Your task to perform on an android device: all mails in gmail Image 0: 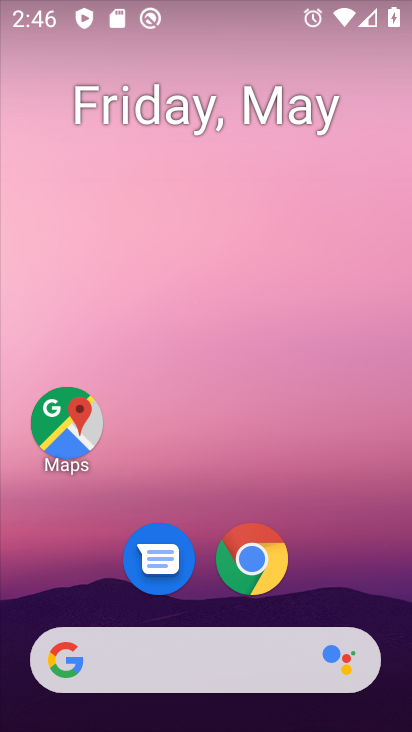
Step 0: drag from (373, 612) to (82, 118)
Your task to perform on an android device: all mails in gmail Image 1: 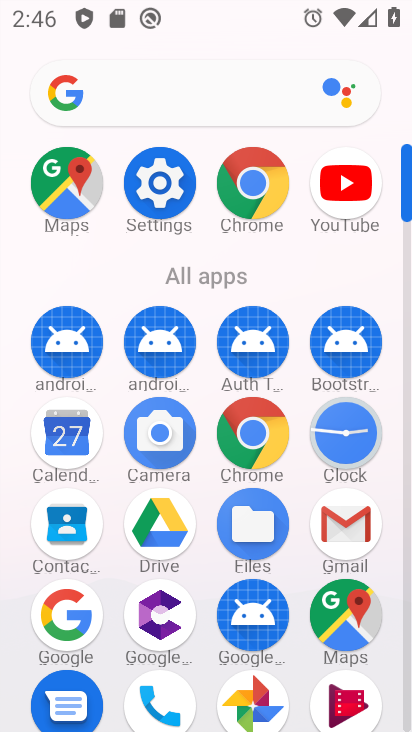
Step 1: click (408, 718)
Your task to perform on an android device: all mails in gmail Image 2: 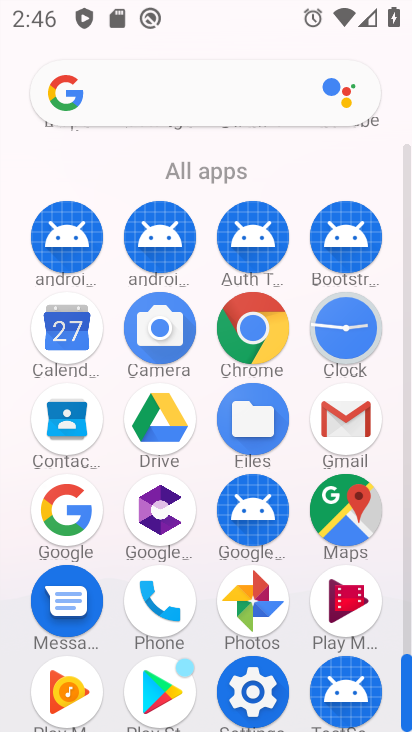
Step 2: click (337, 437)
Your task to perform on an android device: all mails in gmail Image 3: 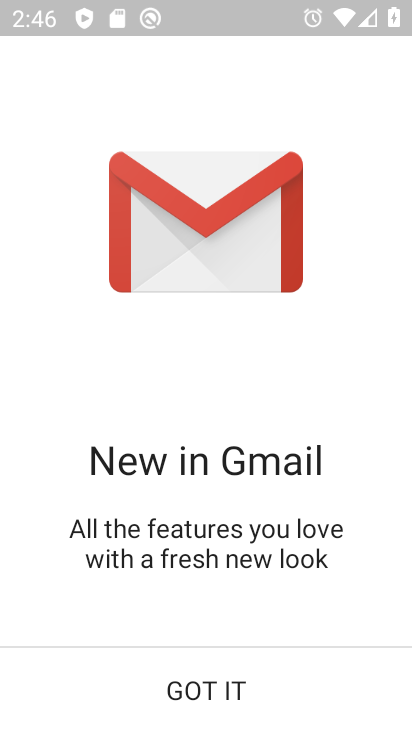
Step 3: click (185, 722)
Your task to perform on an android device: all mails in gmail Image 4: 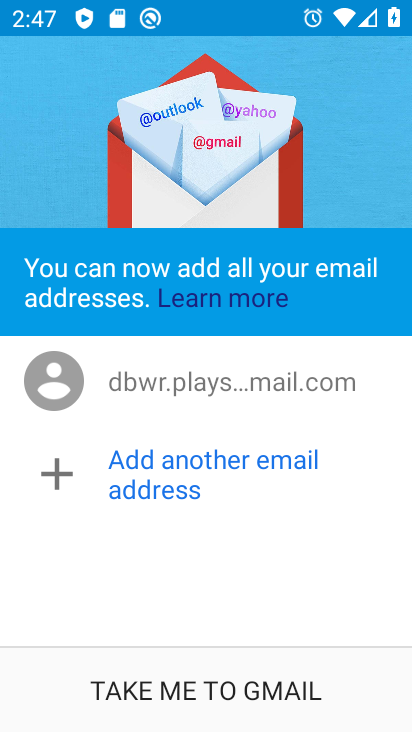
Step 4: click (185, 722)
Your task to perform on an android device: all mails in gmail Image 5: 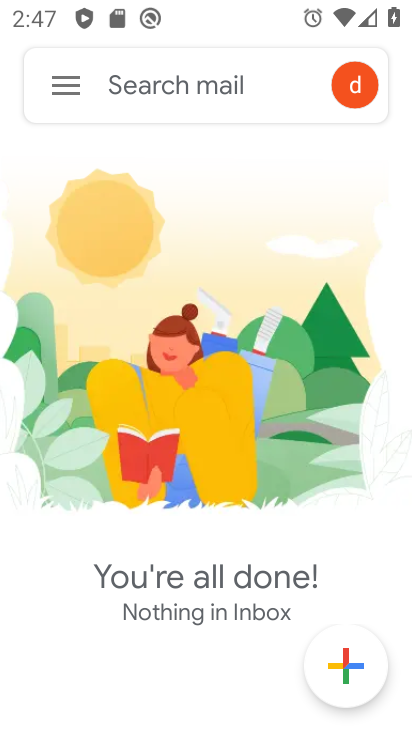
Step 5: click (33, 66)
Your task to perform on an android device: all mails in gmail Image 6: 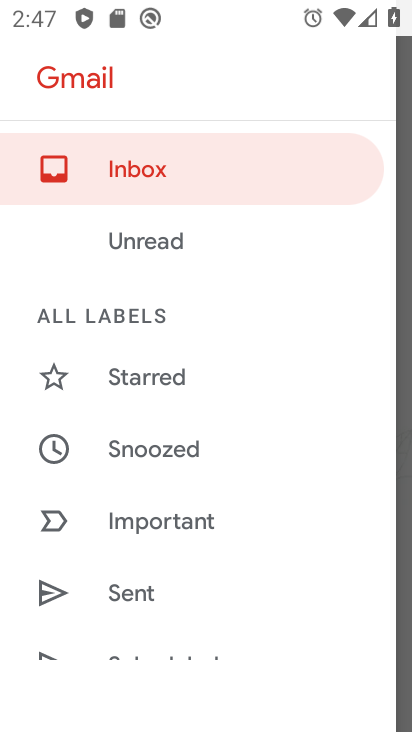
Step 6: drag from (162, 490) to (122, 154)
Your task to perform on an android device: all mails in gmail Image 7: 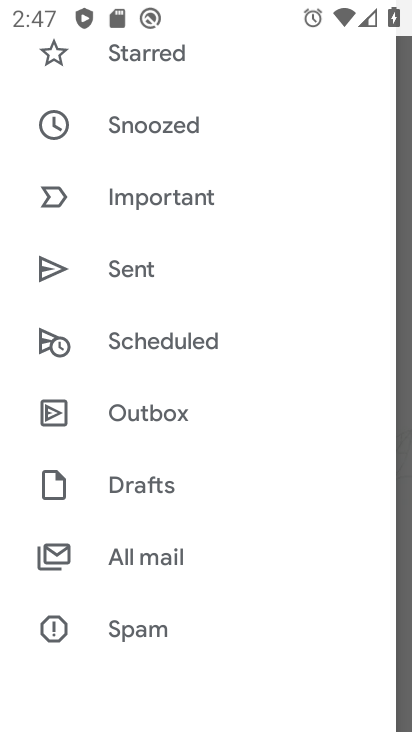
Step 7: click (189, 552)
Your task to perform on an android device: all mails in gmail Image 8: 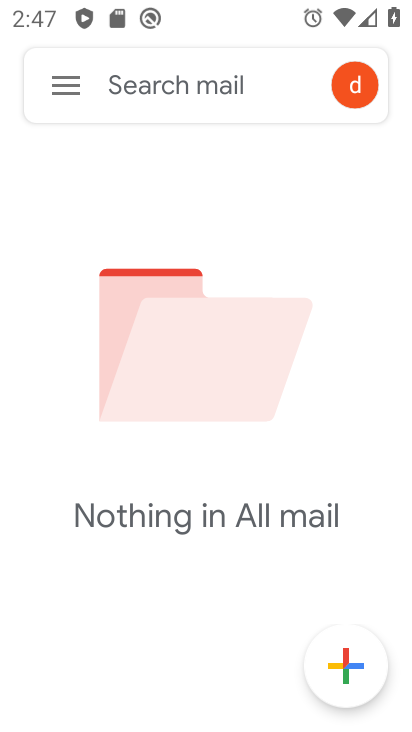
Step 8: task complete